Your task to perform on an android device: Go to Wikipedia Image 0: 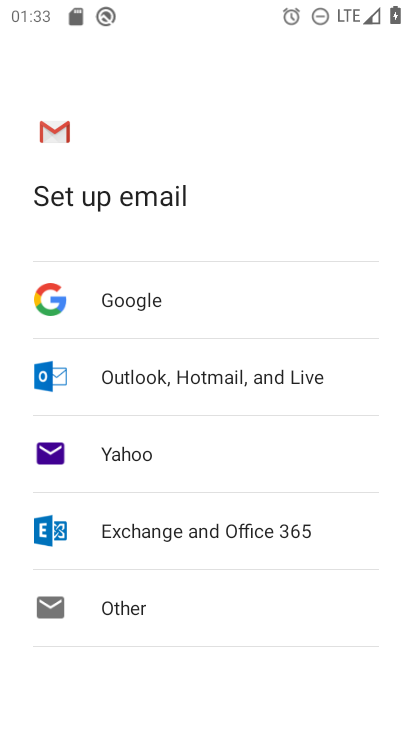
Step 0: press home button
Your task to perform on an android device: Go to Wikipedia Image 1: 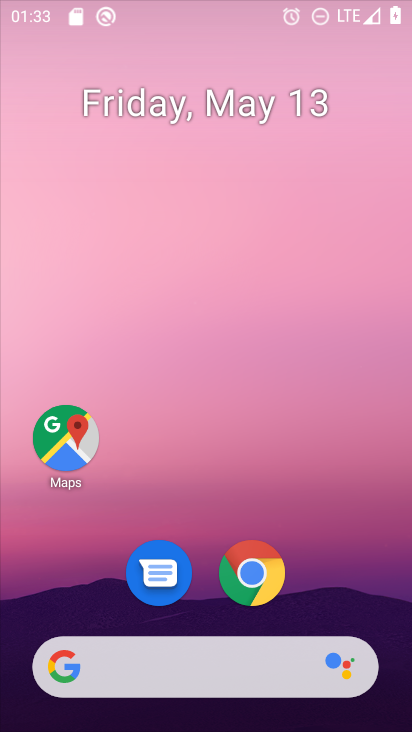
Step 1: click (268, 672)
Your task to perform on an android device: Go to Wikipedia Image 2: 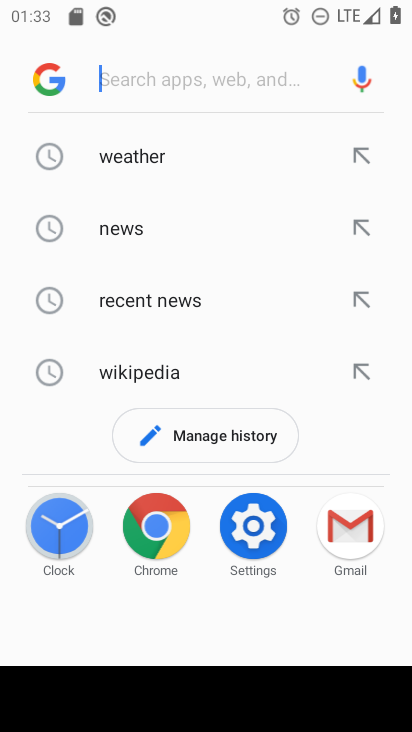
Step 2: click (212, 384)
Your task to perform on an android device: Go to Wikipedia Image 3: 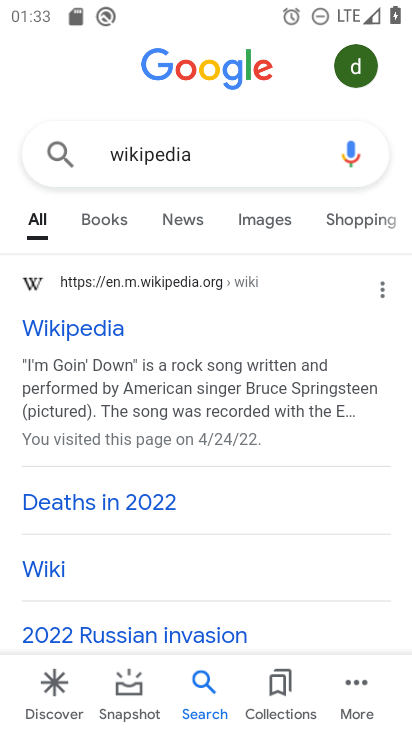
Step 3: click (109, 280)
Your task to perform on an android device: Go to Wikipedia Image 4: 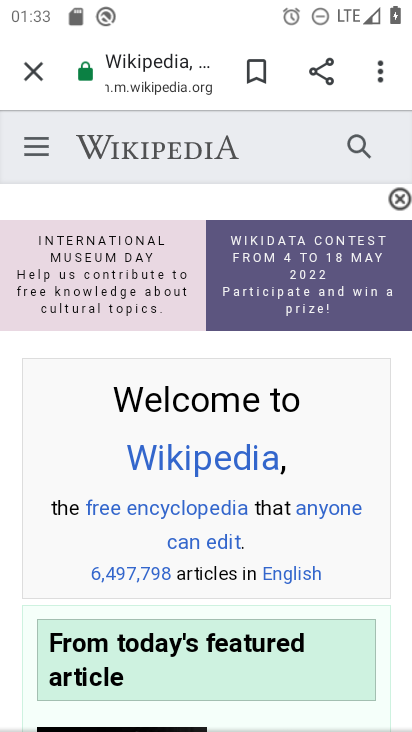
Step 4: task complete